Your task to perform on an android device: Open location settings Image 0: 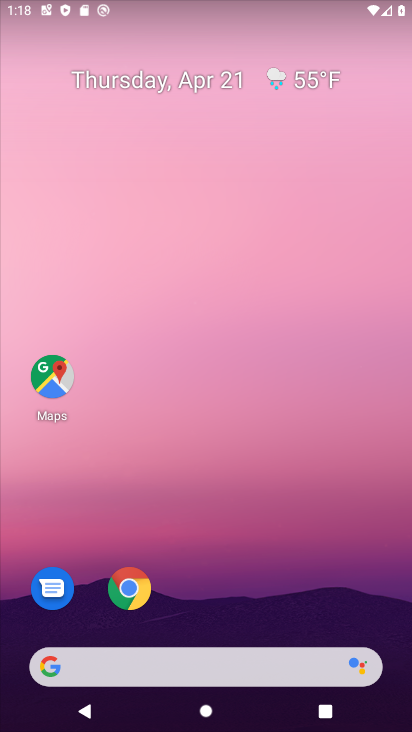
Step 0: drag from (134, 648) to (227, 27)
Your task to perform on an android device: Open location settings Image 1: 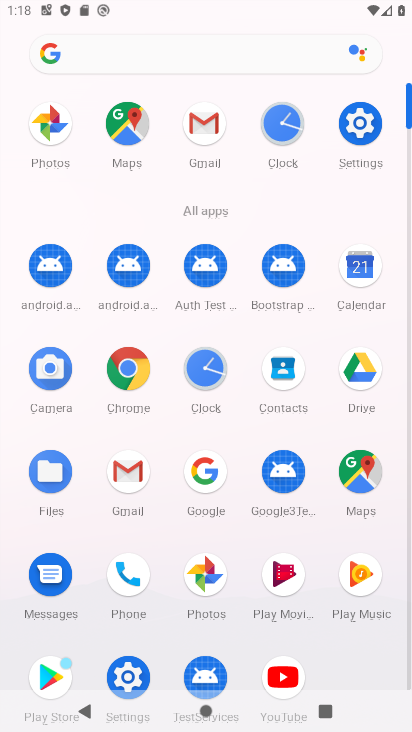
Step 1: click (126, 671)
Your task to perform on an android device: Open location settings Image 2: 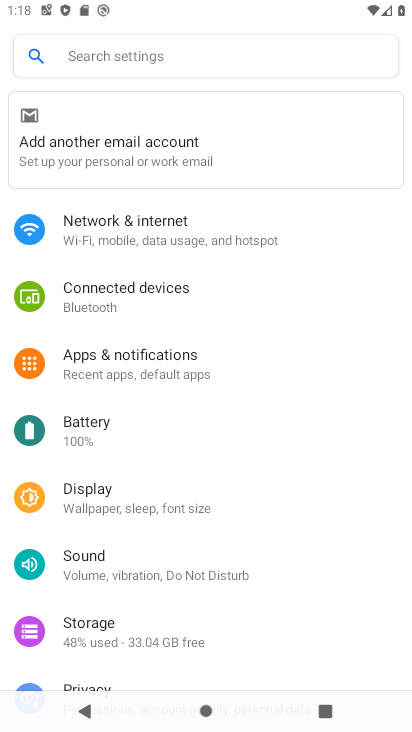
Step 2: drag from (120, 633) to (190, 251)
Your task to perform on an android device: Open location settings Image 3: 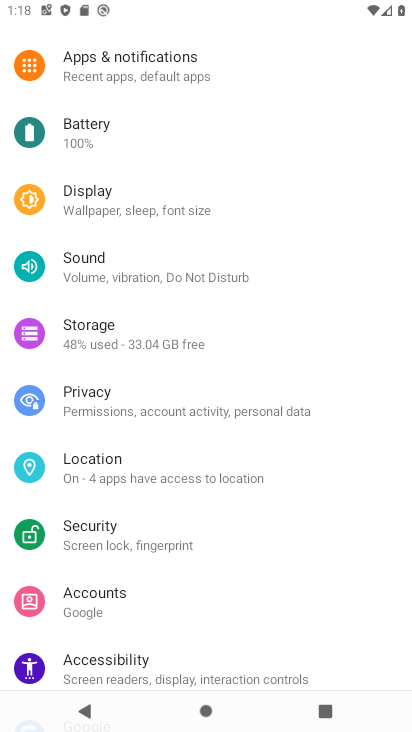
Step 3: click (126, 474)
Your task to perform on an android device: Open location settings Image 4: 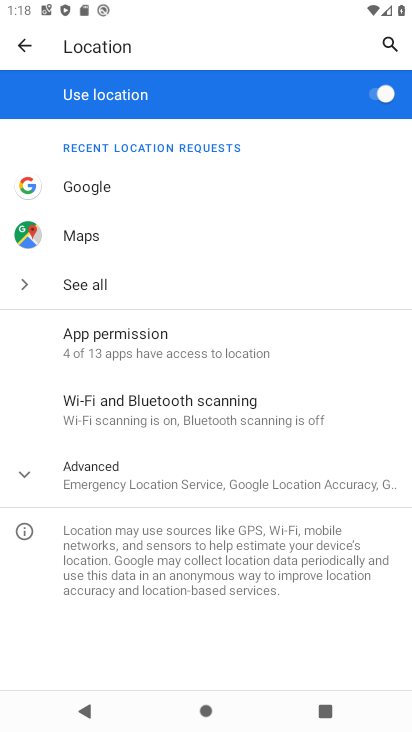
Step 4: click (128, 475)
Your task to perform on an android device: Open location settings Image 5: 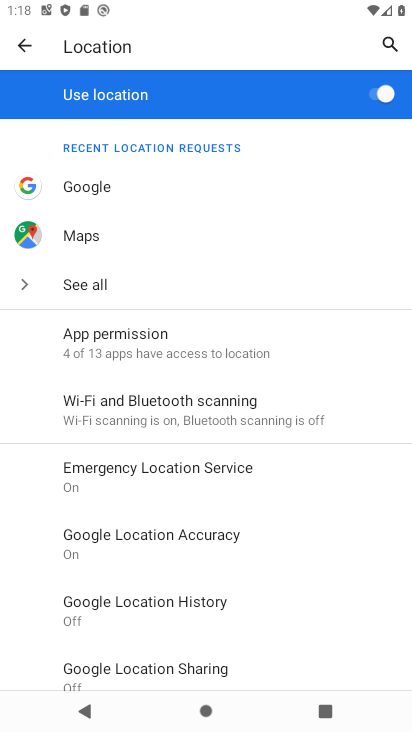
Step 5: task complete